Your task to perform on an android device: turn pop-ups on in chrome Image 0: 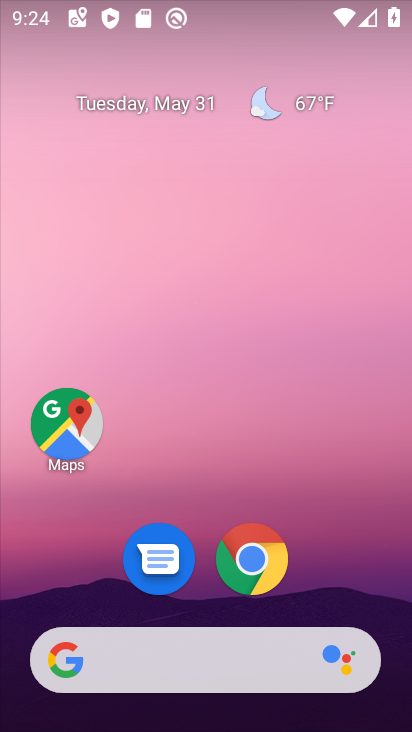
Step 0: click (252, 555)
Your task to perform on an android device: turn pop-ups on in chrome Image 1: 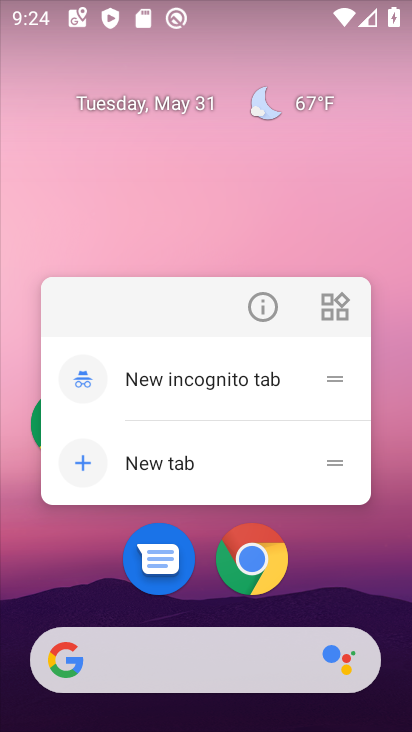
Step 1: click (270, 306)
Your task to perform on an android device: turn pop-ups on in chrome Image 2: 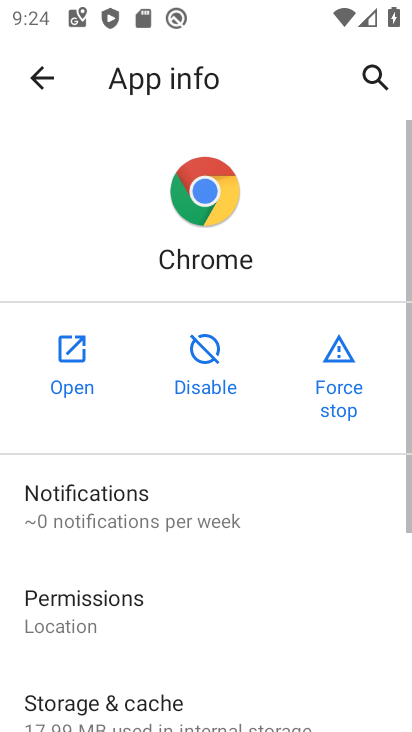
Step 2: drag from (248, 641) to (243, 130)
Your task to perform on an android device: turn pop-ups on in chrome Image 3: 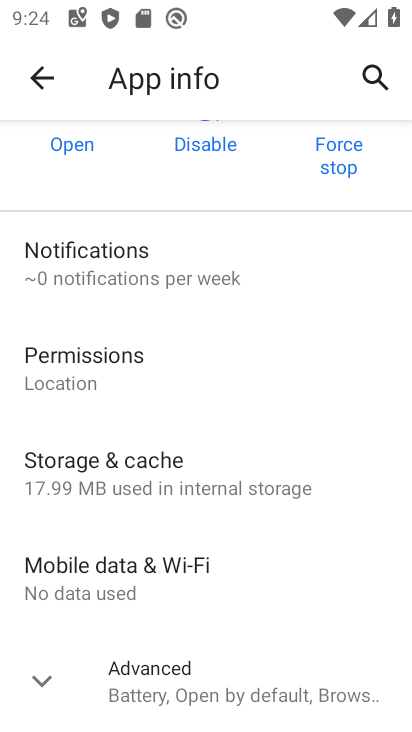
Step 3: click (151, 688)
Your task to perform on an android device: turn pop-ups on in chrome Image 4: 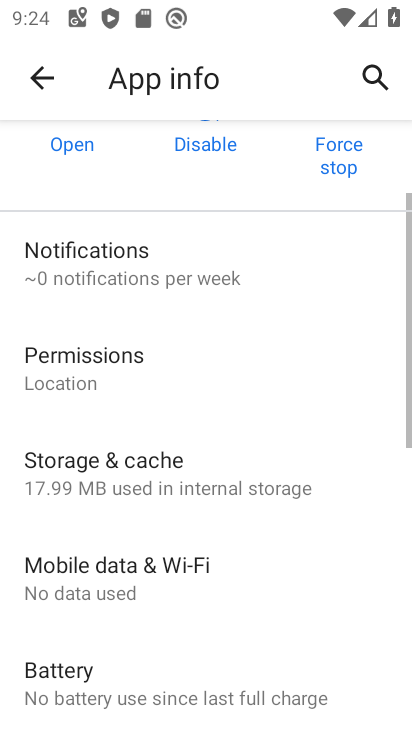
Step 4: drag from (260, 623) to (286, 92)
Your task to perform on an android device: turn pop-ups on in chrome Image 5: 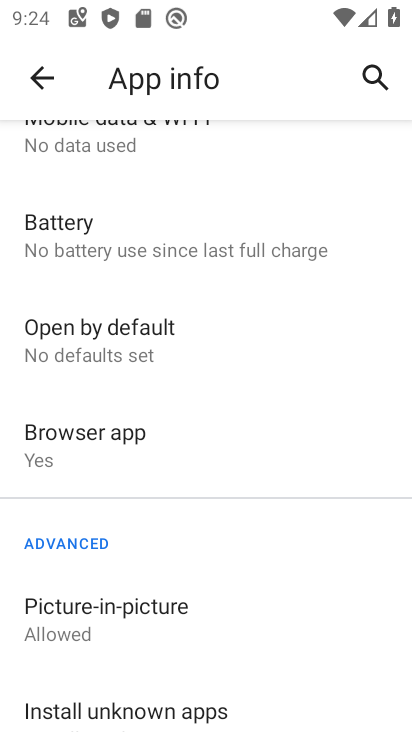
Step 5: click (50, 618)
Your task to perform on an android device: turn pop-ups on in chrome Image 6: 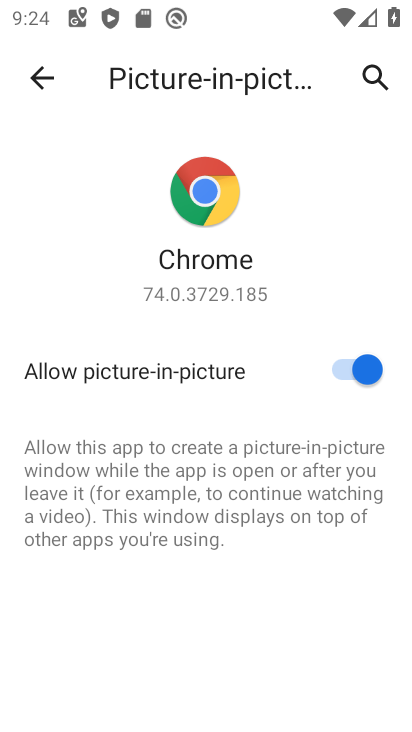
Step 6: task complete